Your task to perform on an android device: open device folders in google photos Image 0: 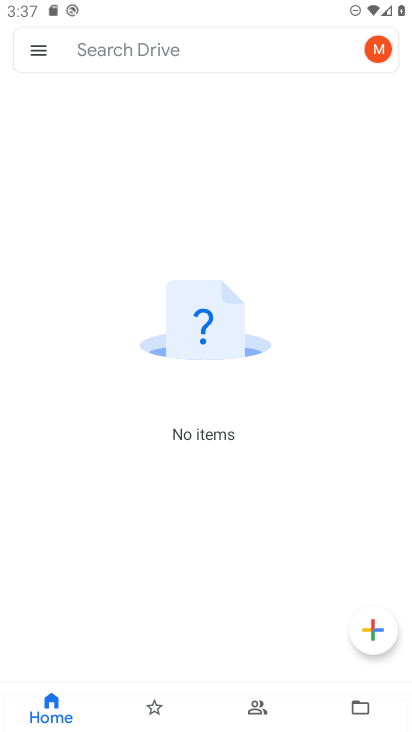
Step 0: press back button
Your task to perform on an android device: open device folders in google photos Image 1: 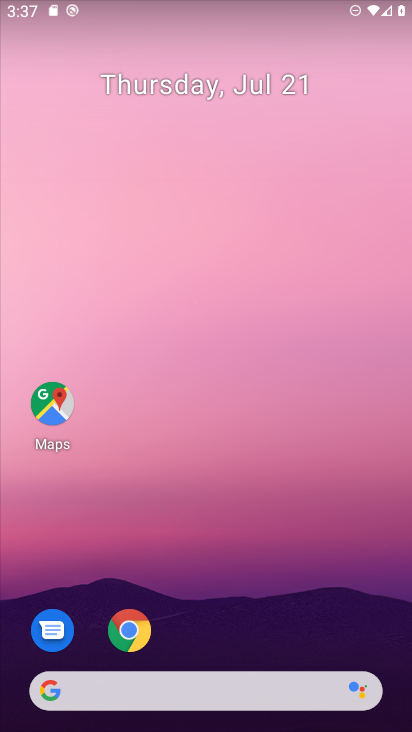
Step 1: drag from (223, 600) to (278, 0)
Your task to perform on an android device: open device folders in google photos Image 2: 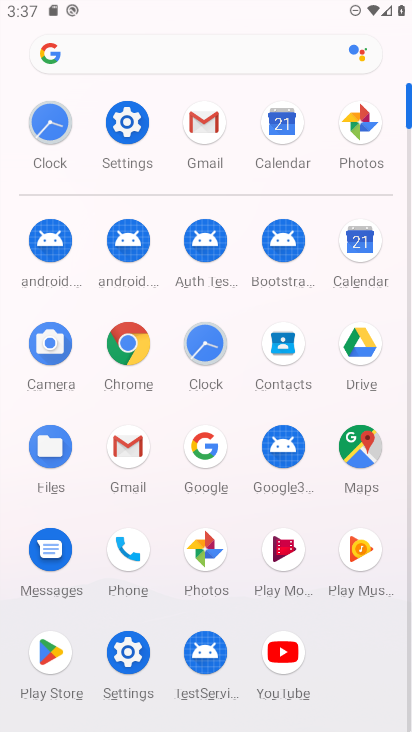
Step 2: click (205, 557)
Your task to perform on an android device: open device folders in google photos Image 3: 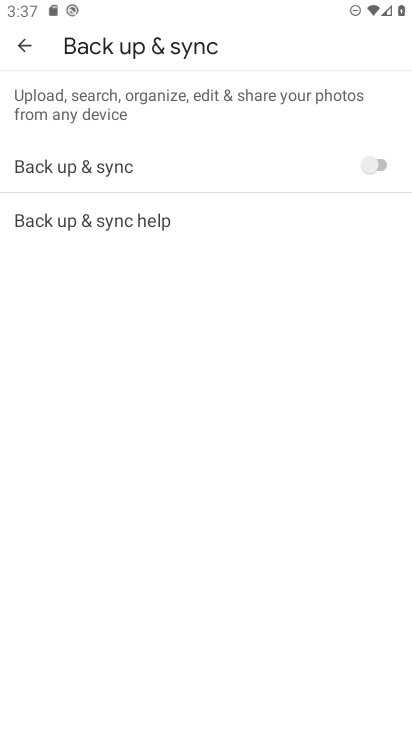
Step 3: click (28, 44)
Your task to perform on an android device: open device folders in google photos Image 4: 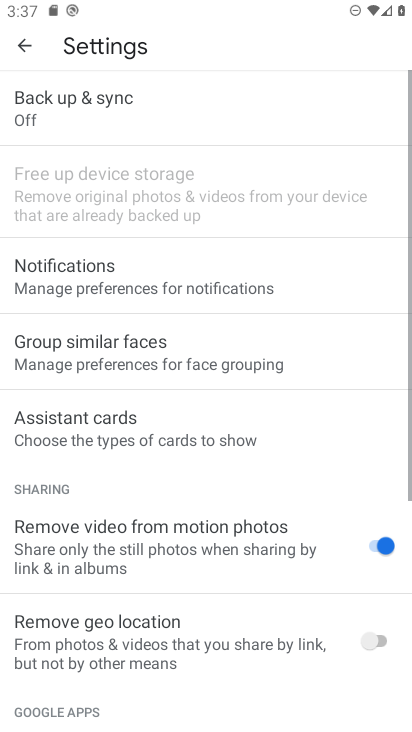
Step 4: click (28, 44)
Your task to perform on an android device: open device folders in google photos Image 5: 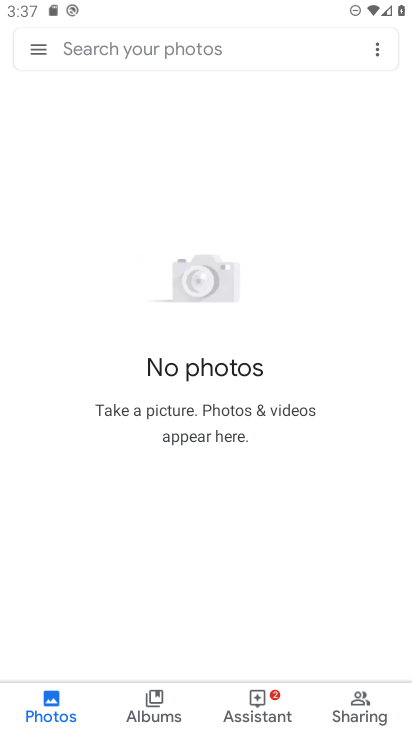
Step 5: click (36, 44)
Your task to perform on an android device: open device folders in google photos Image 6: 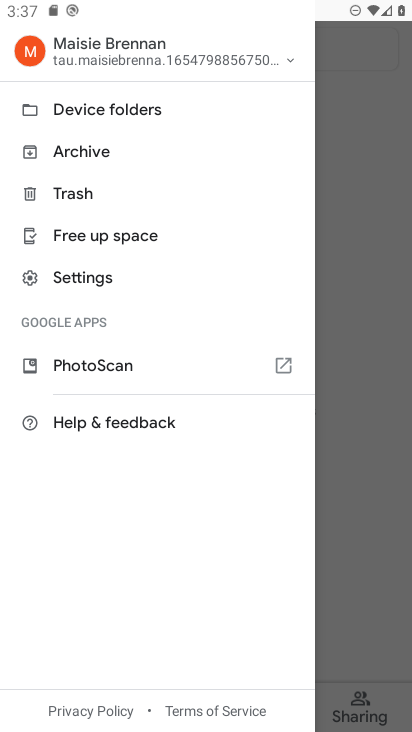
Step 6: click (137, 106)
Your task to perform on an android device: open device folders in google photos Image 7: 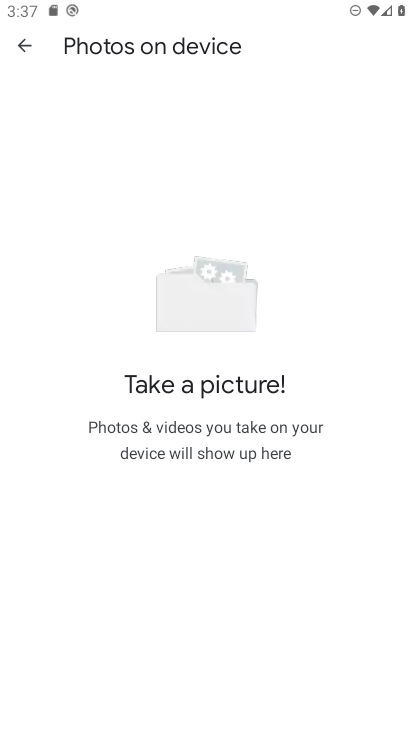
Step 7: task complete